Your task to perform on an android device: Go to eBay Image 0: 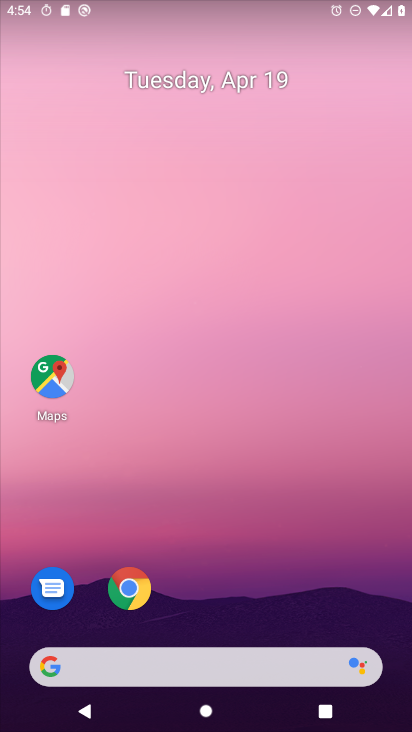
Step 0: click (127, 589)
Your task to perform on an android device: Go to eBay Image 1: 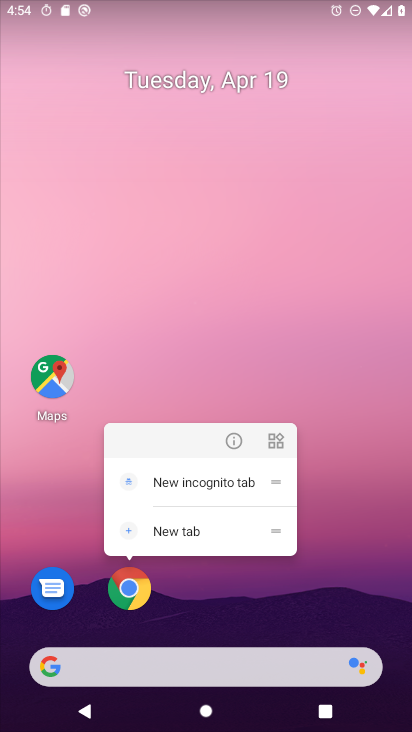
Step 1: click (124, 595)
Your task to perform on an android device: Go to eBay Image 2: 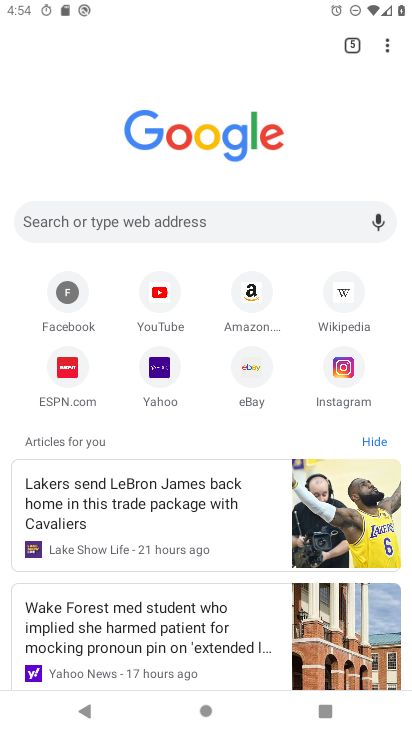
Step 2: click (253, 367)
Your task to perform on an android device: Go to eBay Image 3: 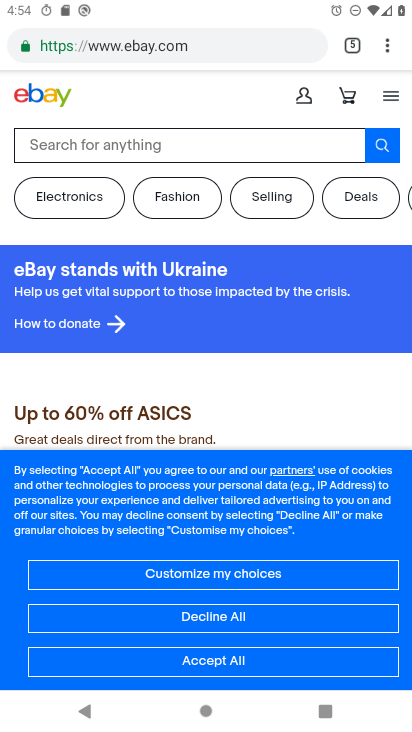
Step 3: task complete